Your task to perform on an android device: turn on improve location accuracy Image 0: 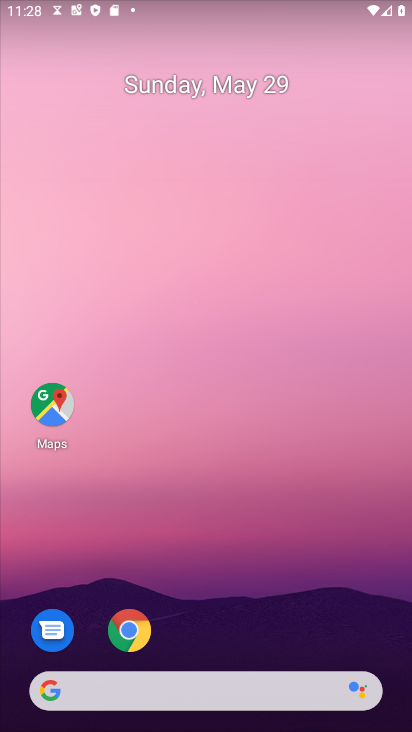
Step 0: click (62, 409)
Your task to perform on an android device: turn on improve location accuracy Image 1: 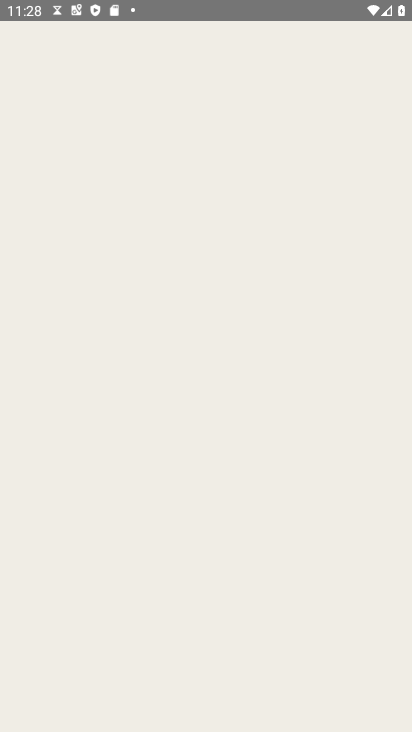
Step 1: press home button
Your task to perform on an android device: turn on improve location accuracy Image 2: 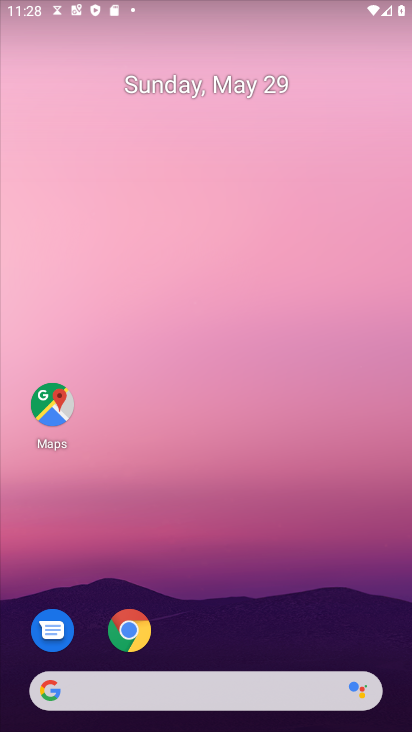
Step 2: drag from (275, 569) to (285, 96)
Your task to perform on an android device: turn on improve location accuracy Image 3: 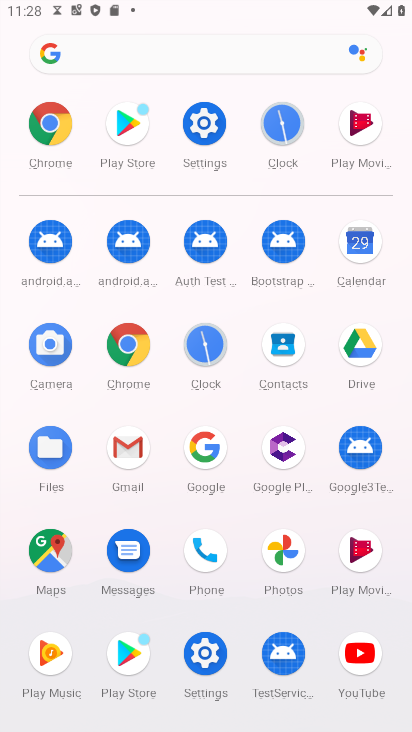
Step 3: click (207, 126)
Your task to perform on an android device: turn on improve location accuracy Image 4: 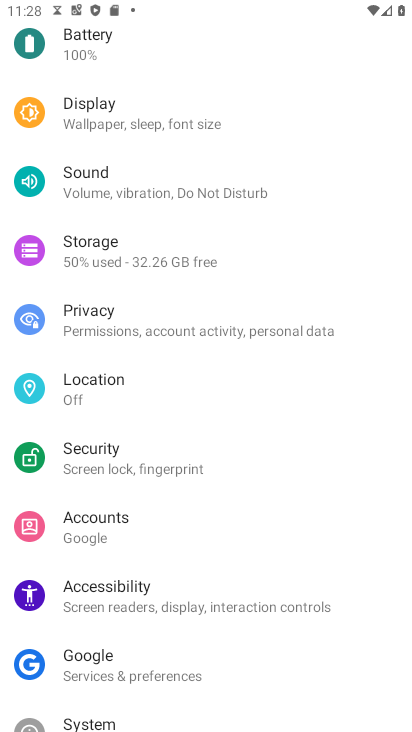
Step 4: click (82, 404)
Your task to perform on an android device: turn on improve location accuracy Image 5: 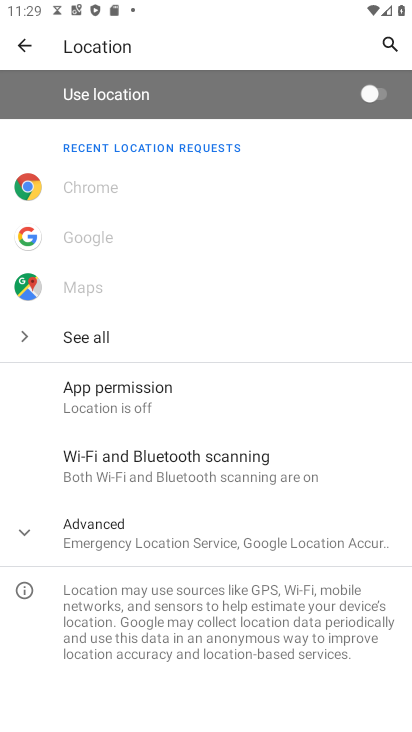
Step 5: click (164, 509)
Your task to perform on an android device: turn on improve location accuracy Image 6: 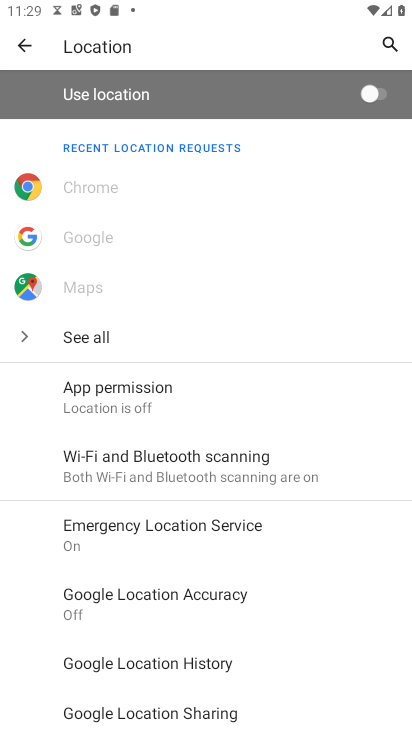
Step 6: click (160, 589)
Your task to perform on an android device: turn on improve location accuracy Image 7: 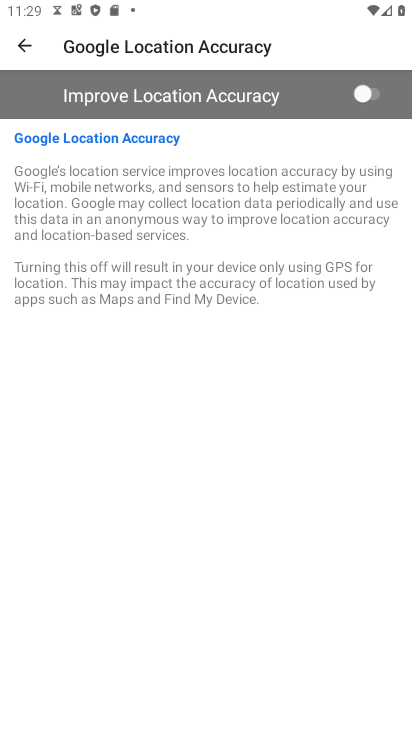
Step 7: click (359, 92)
Your task to perform on an android device: turn on improve location accuracy Image 8: 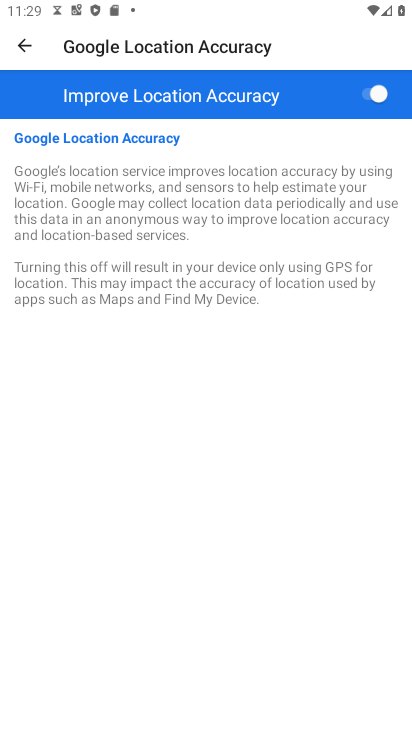
Step 8: task complete